Your task to perform on an android device: turn on data saver in the chrome app Image 0: 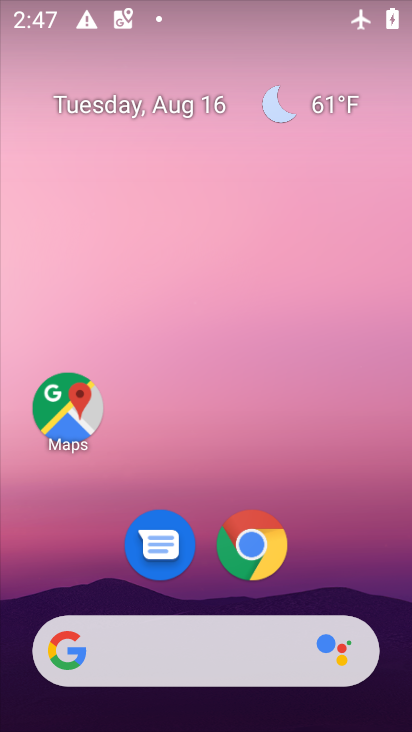
Step 0: drag from (217, 597) to (186, 218)
Your task to perform on an android device: turn on data saver in the chrome app Image 1: 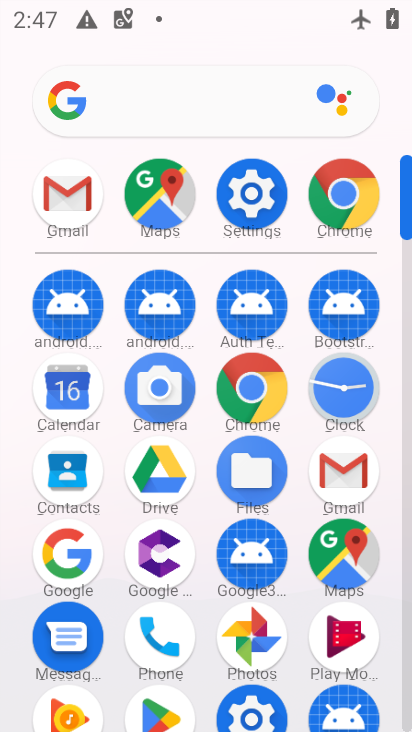
Step 1: click (333, 195)
Your task to perform on an android device: turn on data saver in the chrome app Image 2: 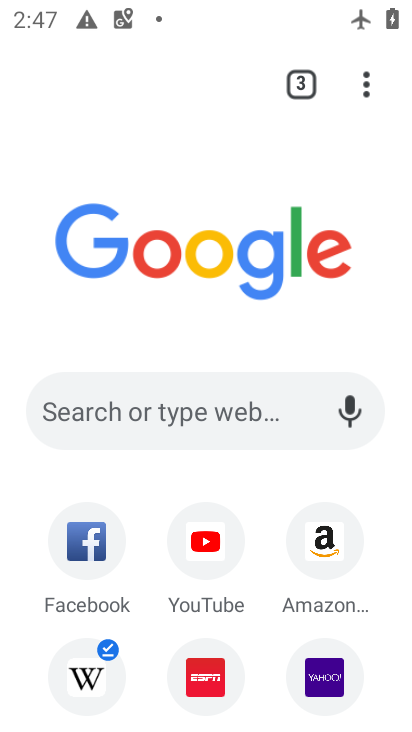
Step 2: click (358, 74)
Your task to perform on an android device: turn on data saver in the chrome app Image 3: 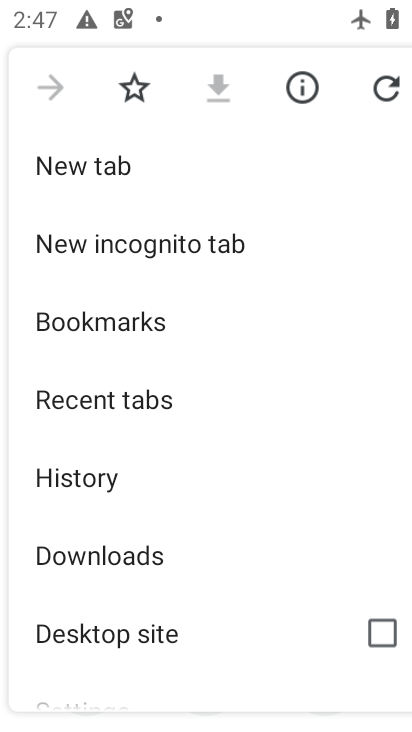
Step 3: drag from (153, 601) to (153, 264)
Your task to perform on an android device: turn on data saver in the chrome app Image 4: 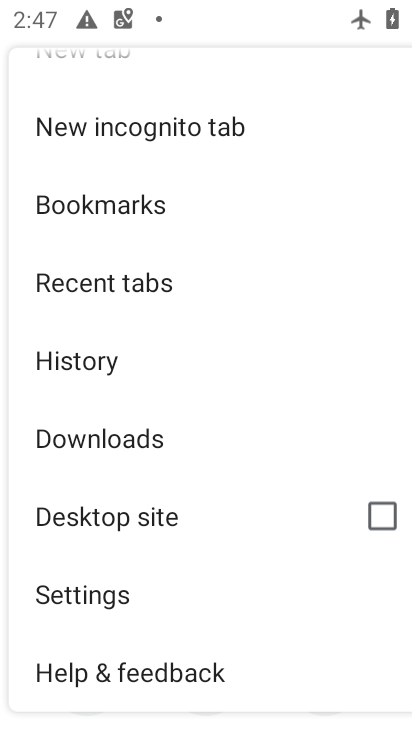
Step 4: click (90, 594)
Your task to perform on an android device: turn on data saver in the chrome app Image 5: 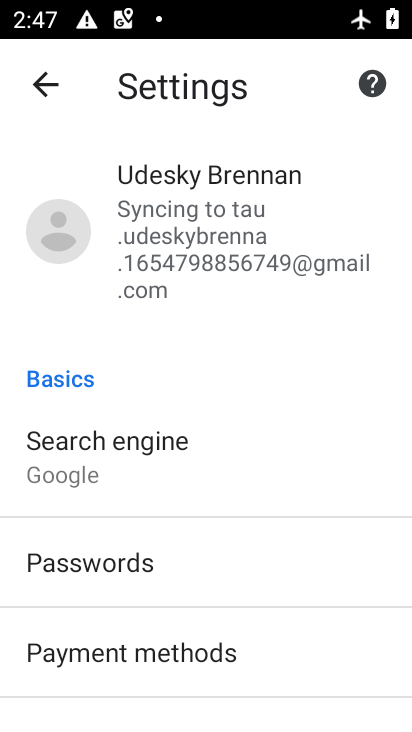
Step 5: drag from (104, 646) to (114, 276)
Your task to perform on an android device: turn on data saver in the chrome app Image 6: 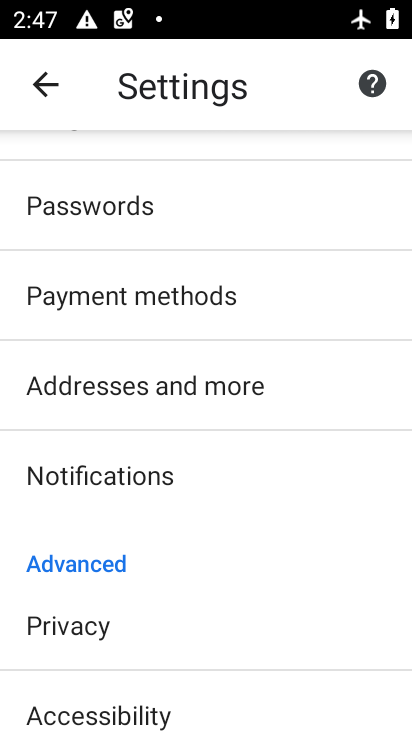
Step 6: drag from (174, 666) to (157, 342)
Your task to perform on an android device: turn on data saver in the chrome app Image 7: 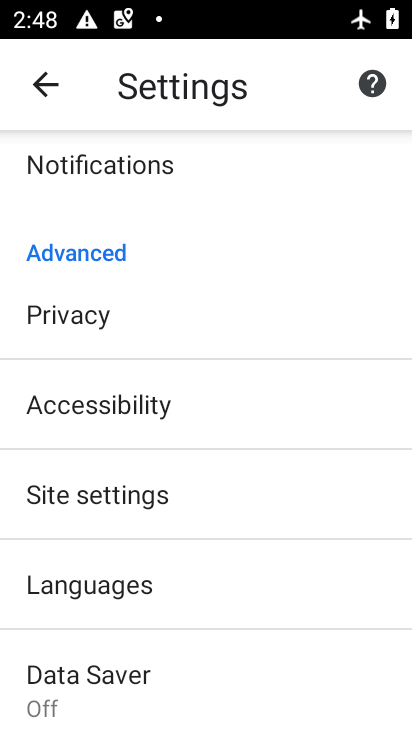
Step 7: click (78, 690)
Your task to perform on an android device: turn on data saver in the chrome app Image 8: 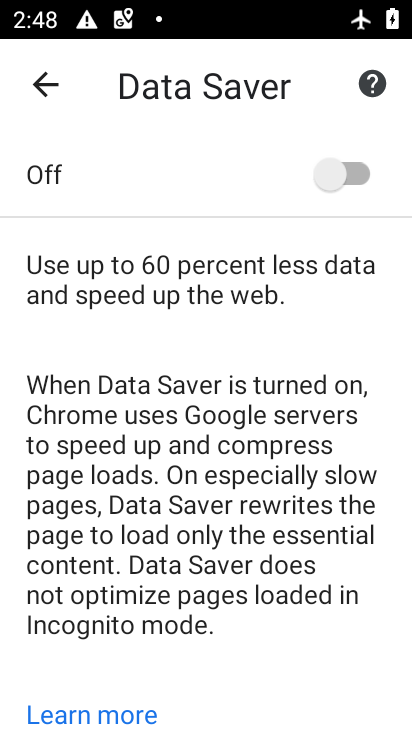
Step 8: click (367, 169)
Your task to perform on an android device: turn on data saver in the chrome app Image 9: 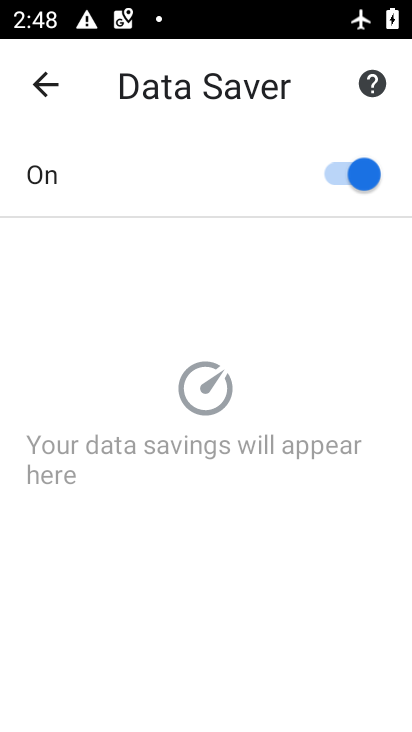
Step 9: task complete